Your task to perform on an android device: refresh tabs in the chrome app Image 0: 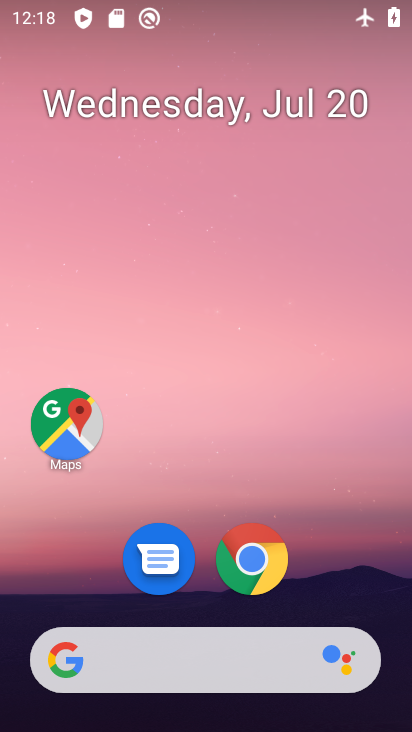
Step 0: drag from (370, 586) to (370, 132)
Your task to perform on an android device: refresh tabs in the chrome app Image 1: 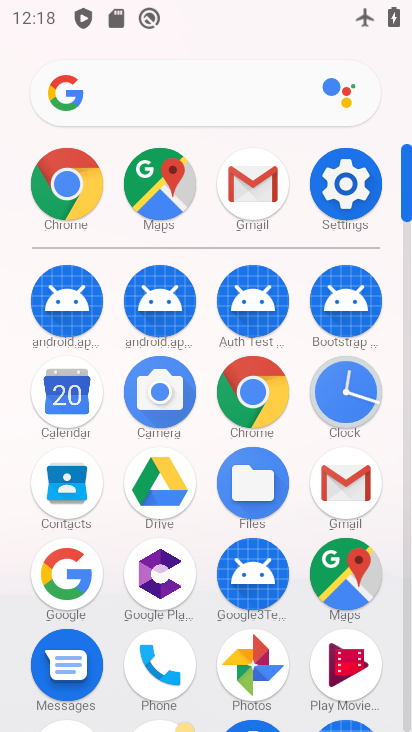
Step 1: click (259, 408)
Your task to perform on an android device: refresh tabs in the chrome app Image 2: 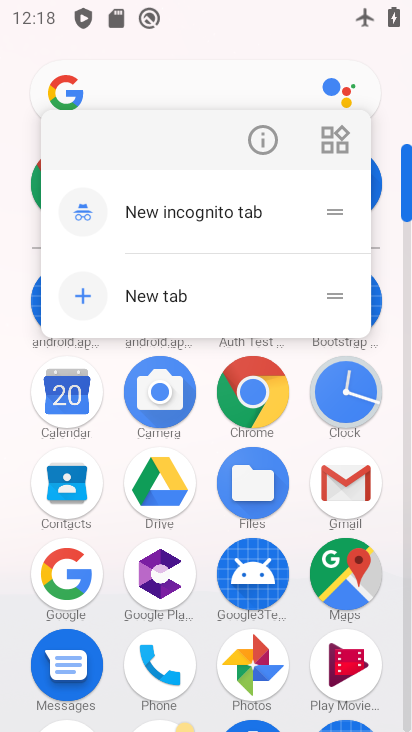
Step 2: click (259, 408)
Your task to perform on an android device: refresh tabs in the chrome app Image 3: 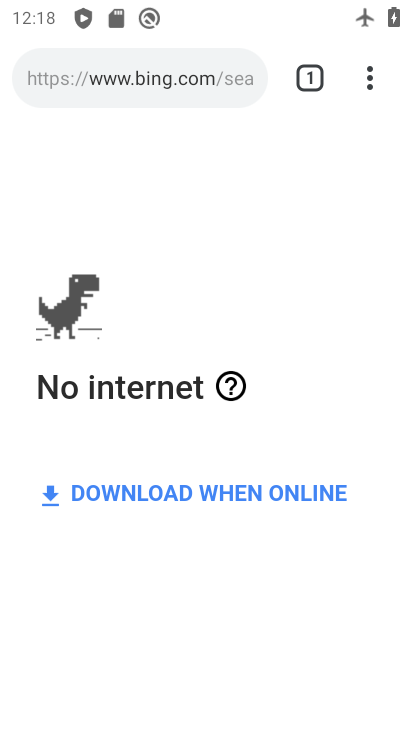
Step 3: click (372, 85)
Your task to perform on an android device: refresh tabs in the chrome app Image 4: 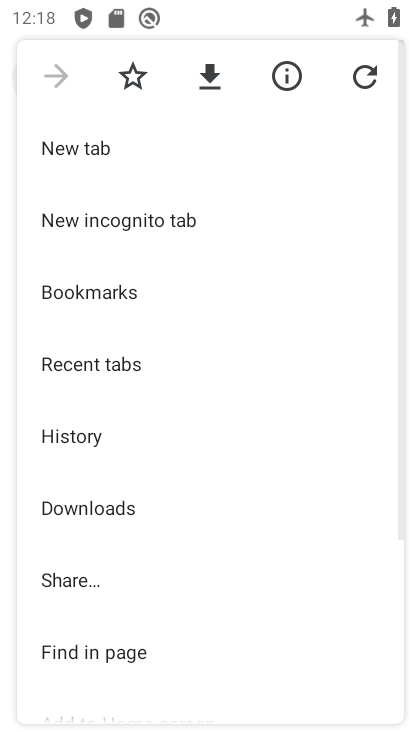
Step 4: click (371, 83)
Your task to perform on an android device: refresh tabs in the chrome app Image 5: 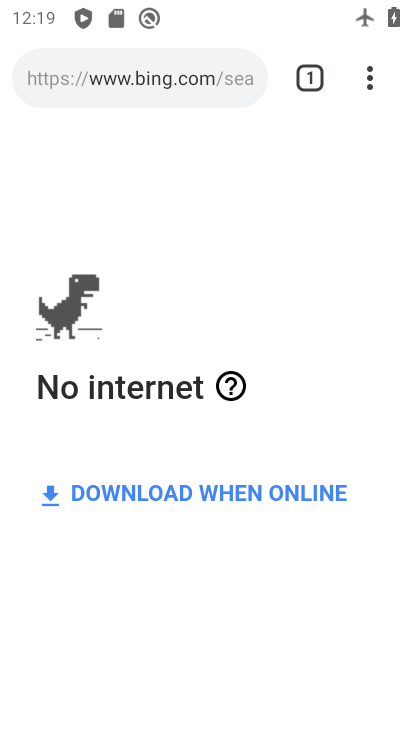
Step 5: task complete